Your task to perform on an android device: change the clock display to digital Image 0: 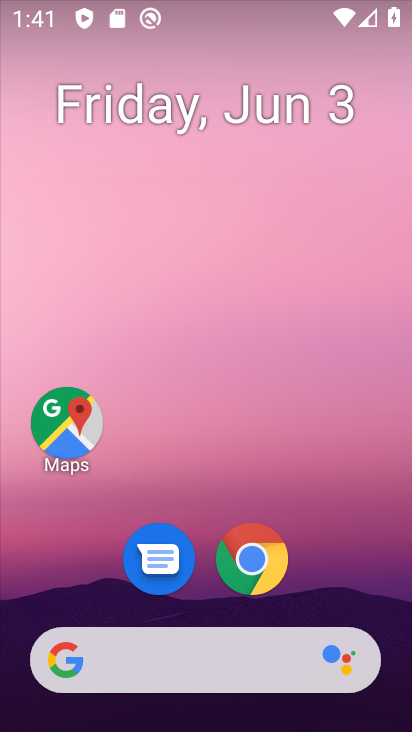
Step 0: drag from (386, 539) to (389, 34)
Your task to perform on an android device: change the clock display to digital Image 1: 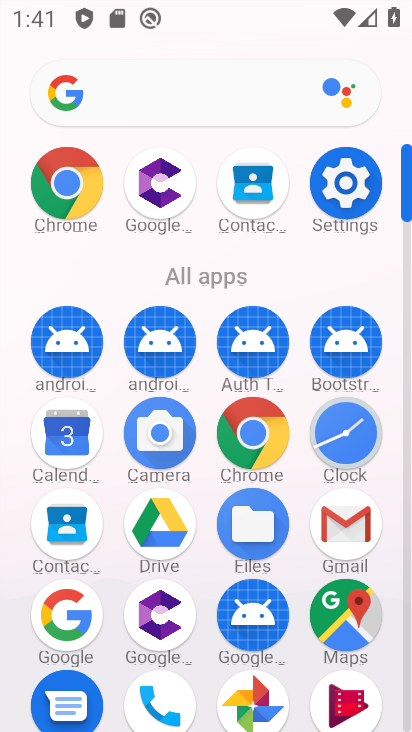
Step 1: click (355, 438)
Your task to perform on an android device: change the clock display to digital Image 2: 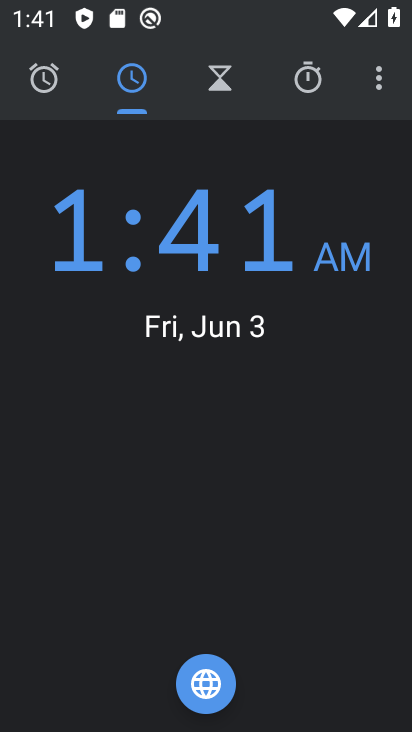
Step 2: click (378, 78)
Your task to perform on an android device: change the clock display to digital Image 3: 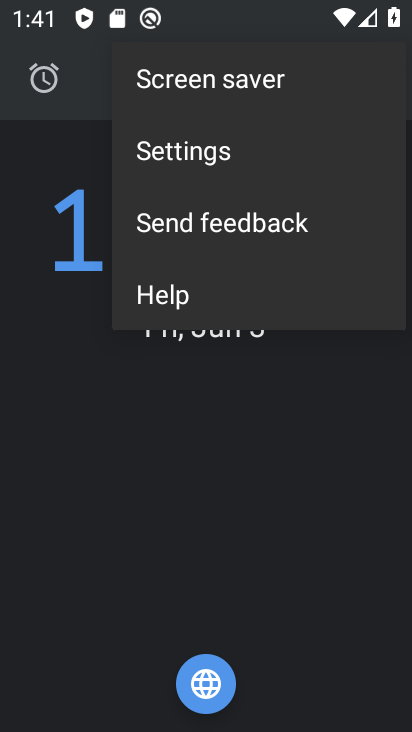
Step 3: click (253, 149)
Your task to perform on an android device: change the clock display to digital Image 4: 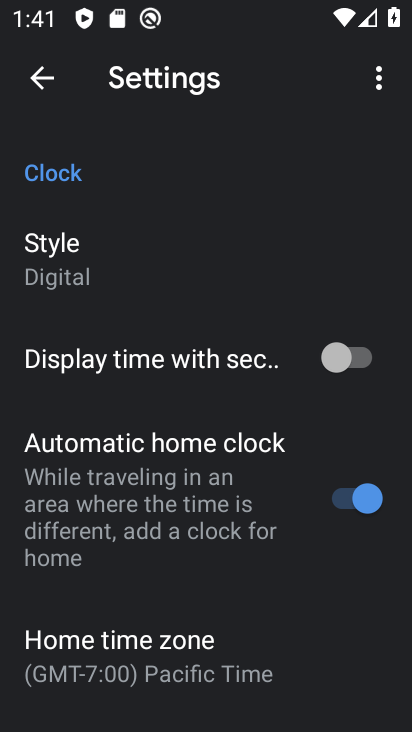
Step 4: task complete